Your task to perform on an android device: toggle improve location accuracy Image 0: 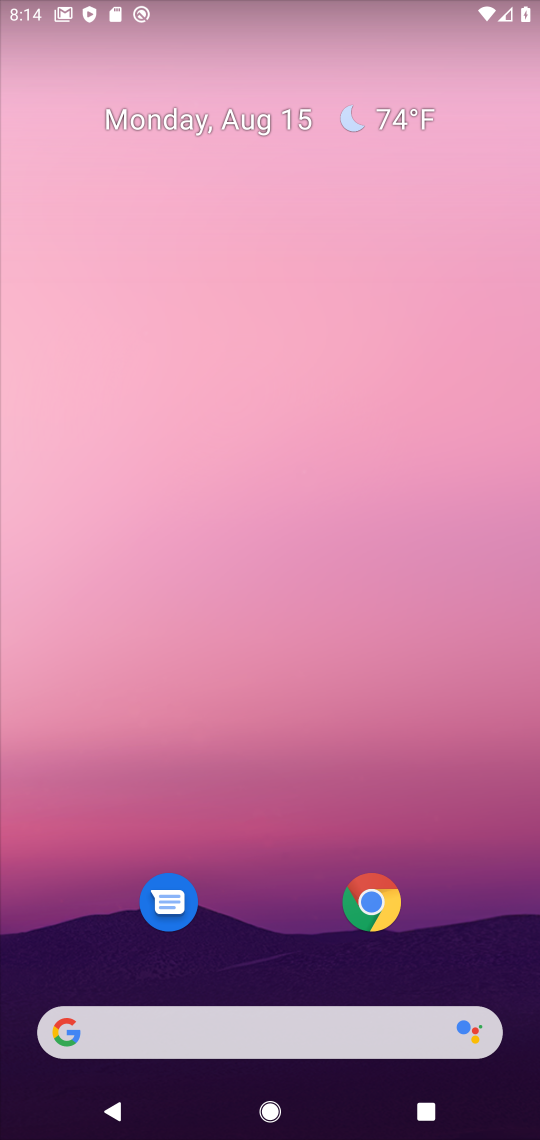
Step 0: drag from (478, 843) to (333, 22)
Your task to perform on an android device: toggle improve location accuracy Image 1: 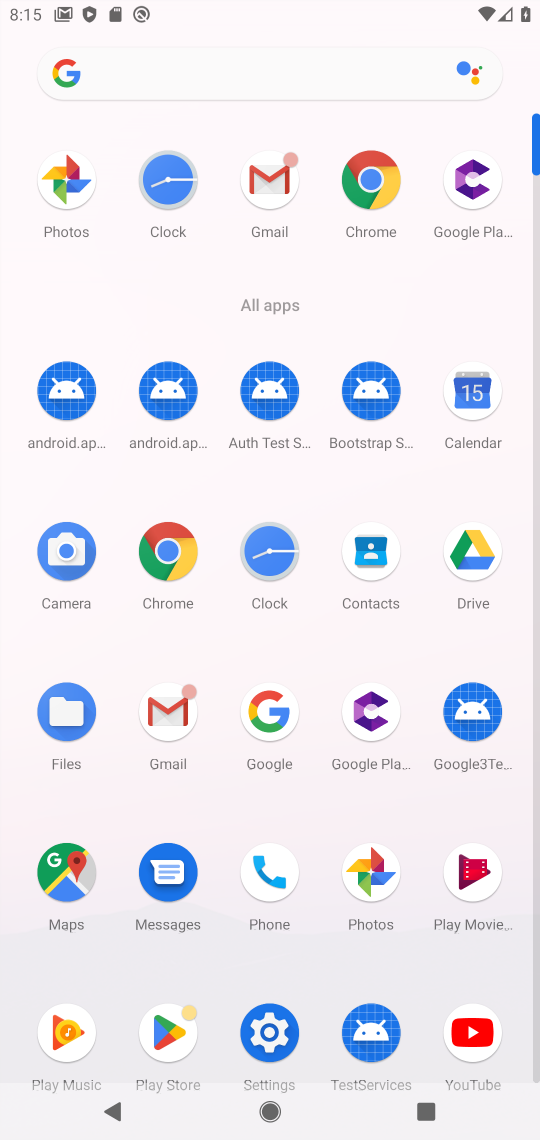
Step 1: click (256, 1023)
Your task to perform on an android device: toggle improve location accuracy Image 2: 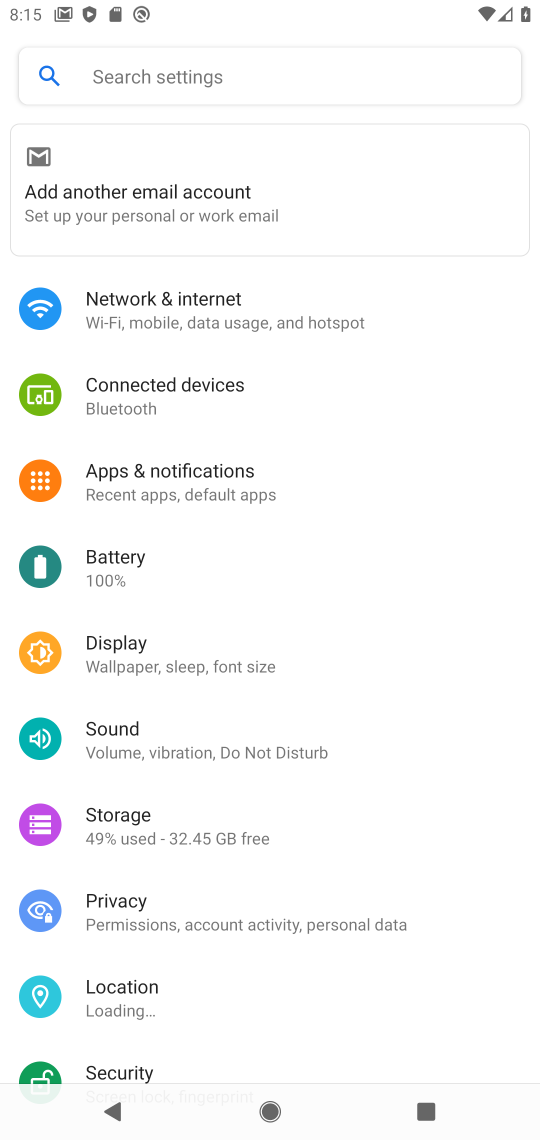
Step 2: click (158, 1003)
Your task to perform on an android device: toggle improve location accuracy Image 3: 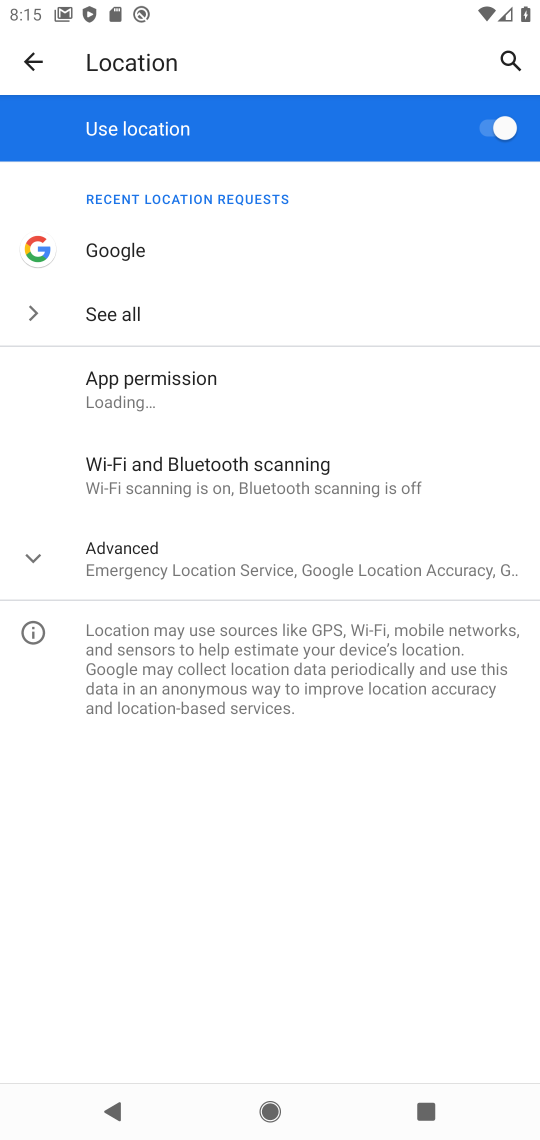
Step 3: click (66, 548)
Your task to perform on an android device: toggle improve location accuracy Image 4: 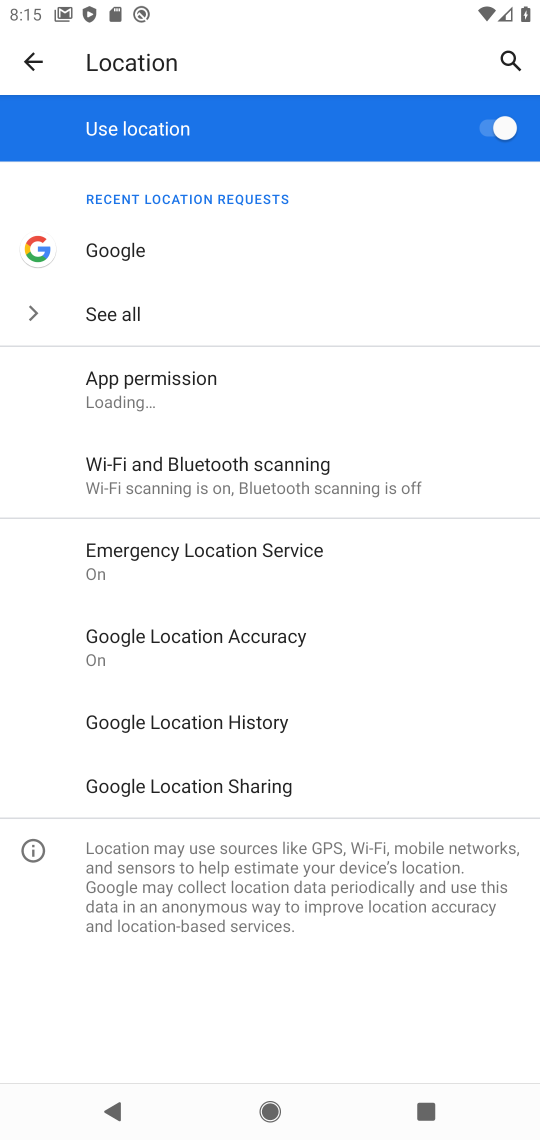
Step 4: click (213, 654)
Your task to perform on an android device: toggle improve location accuracy Image 5: 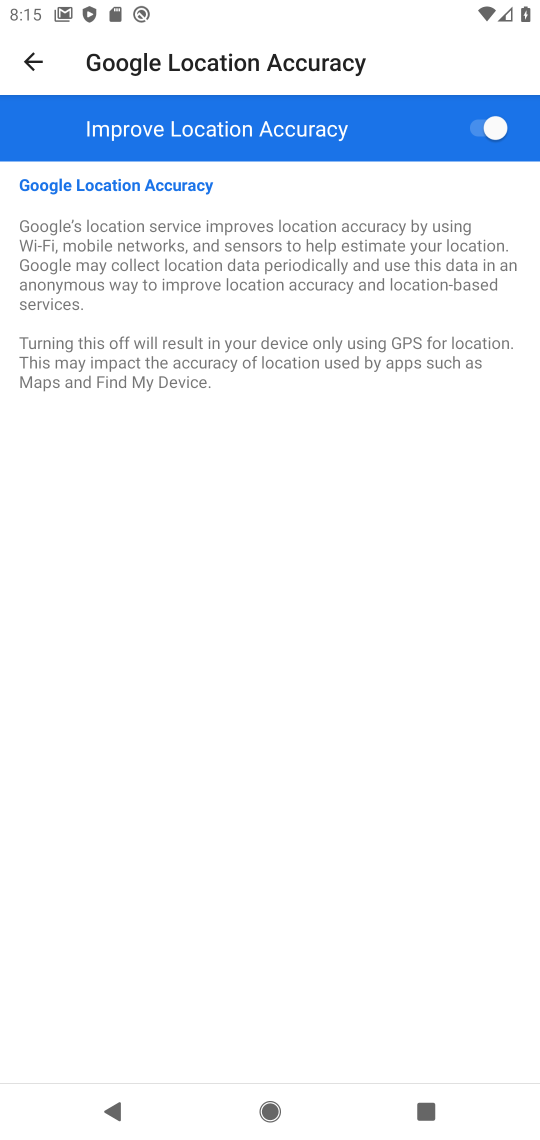
Step 5: click (499, 127)
Your task to perform on an android device: toggle improve location accuracy Image 6: 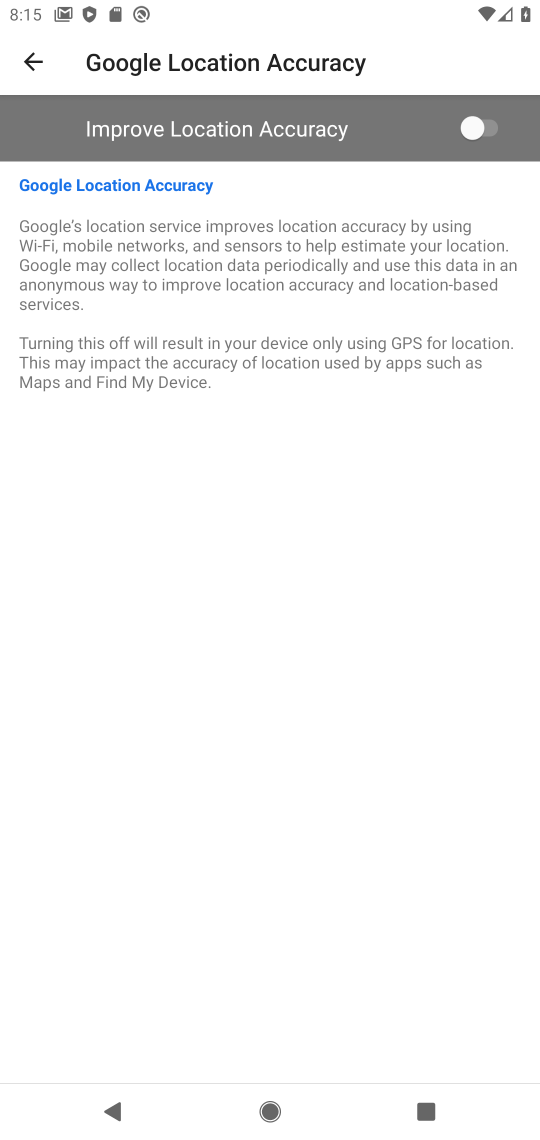
Step 6: task complete